Your task to perform on an android device: Open calendar and show me the third week of next month Image 0: 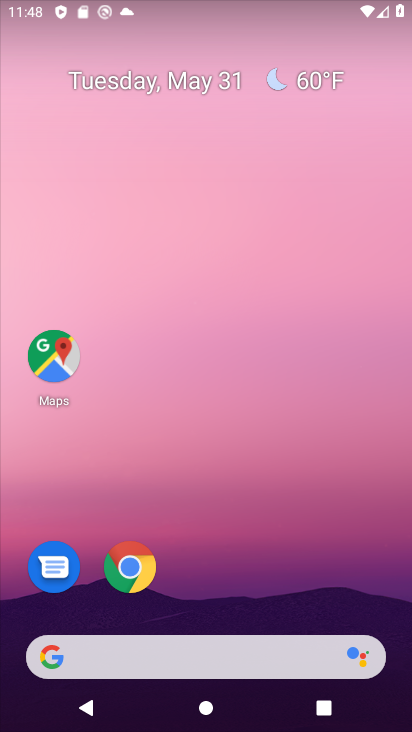
Step 0: drag from (168, 644) to (146, 23)
Your task to perform on an android device: Open calendar and show me the third week of next month Image 1: 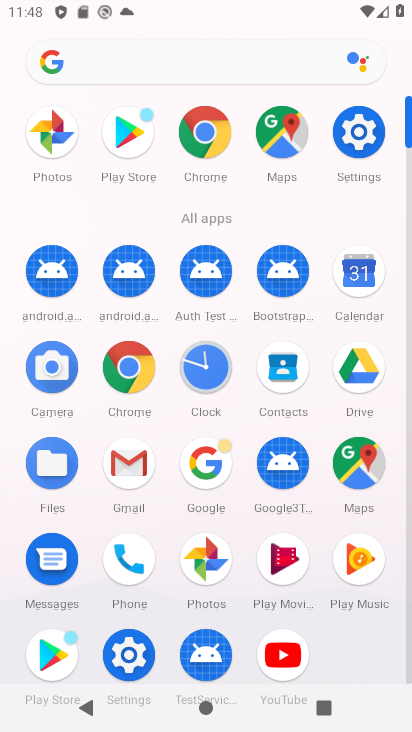
Step 1: click (358, 265)
Your task to perform on an android device: Open calendar and show me the third week of next month Image 2: 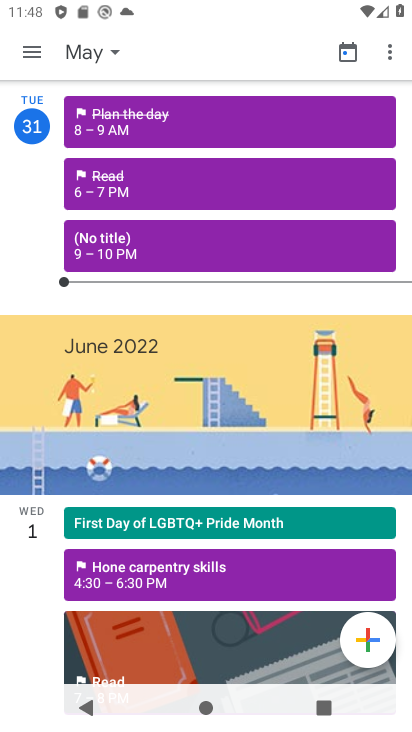
Step 2: click (38, 56)
Your task to perform on an android device: Open calendar and show me the third week of next month Image 3: 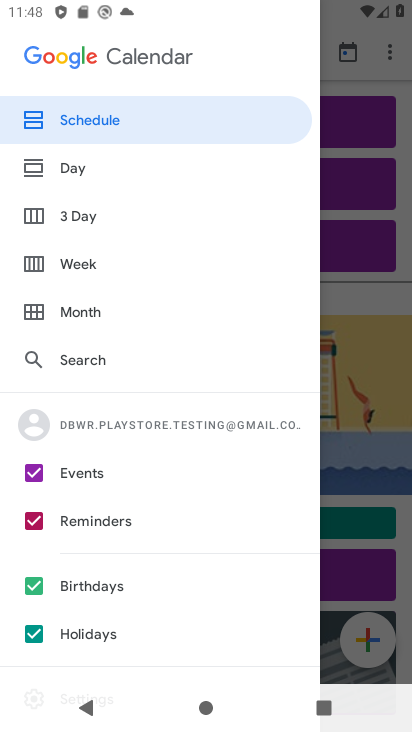
Step 3: click (87, 312)
Your task to perform on an android device: Open calendar and show me the third week of next month Image 4: 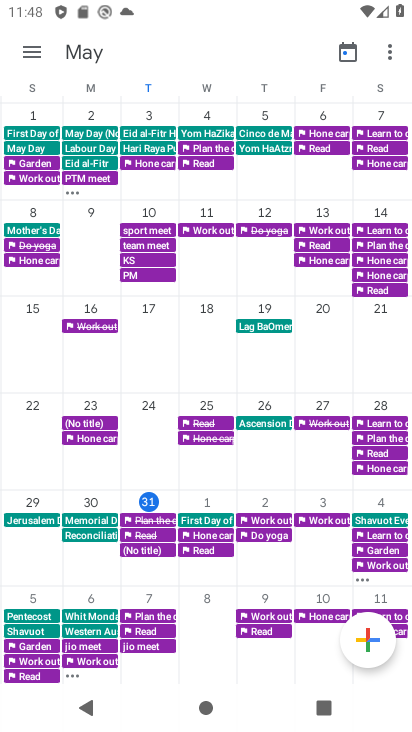
Step 4: task complete